Your task to perform on an android device: delete location history Image 0: 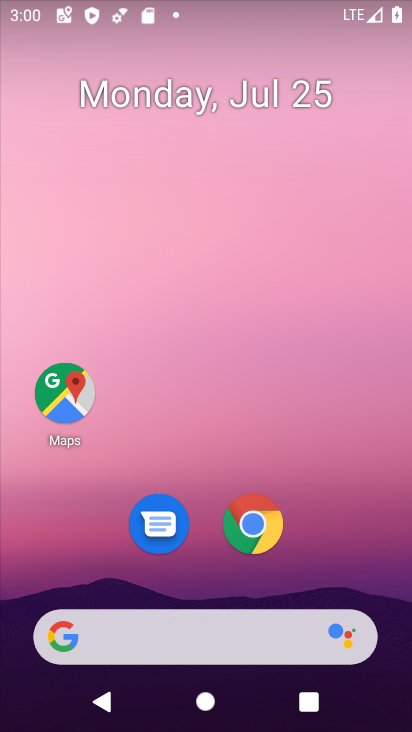
Step 0: drag from (333, 538) to (289, 52)
Your task to perform on an android device: delete location history Image 1: 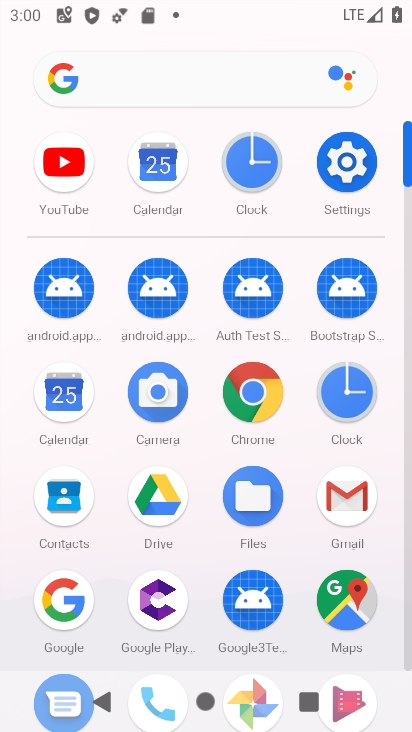
Step 1: click (345, 606)
Your task to perform on an android device: delete location history Image 2: 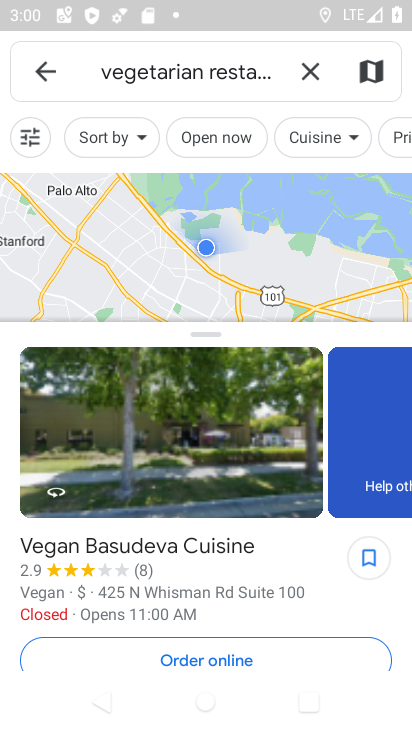
Step 2: click (45, 61)
Your task to perform on an android device: delete location history Image 3: 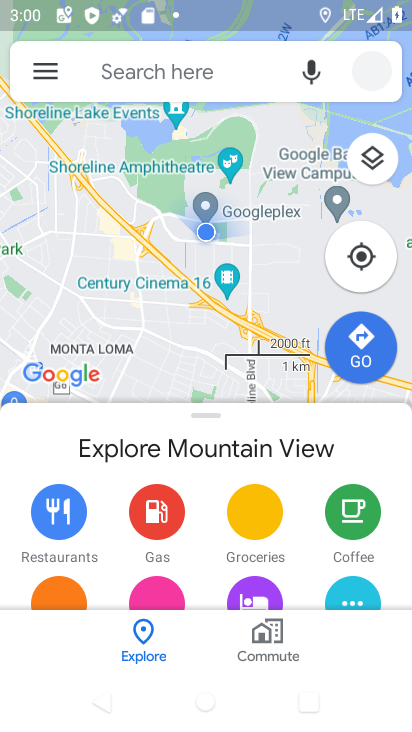
Step 3: click (45, 62)
Your task to perform on an android device: delete location history Image 4: 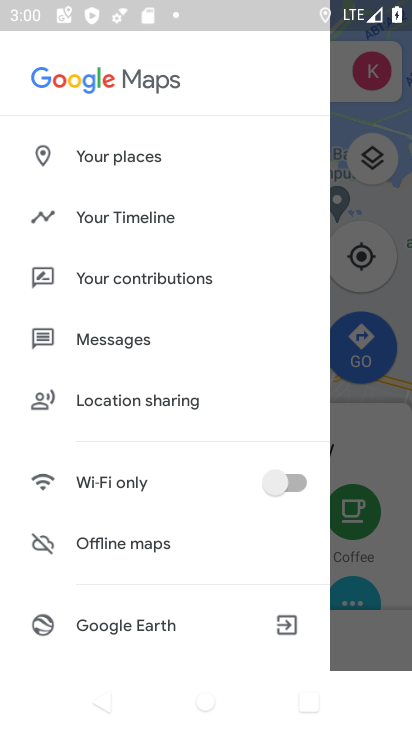
Step 4: click (132, 214)
Your task to perform on an android device: delete location history Image 5: 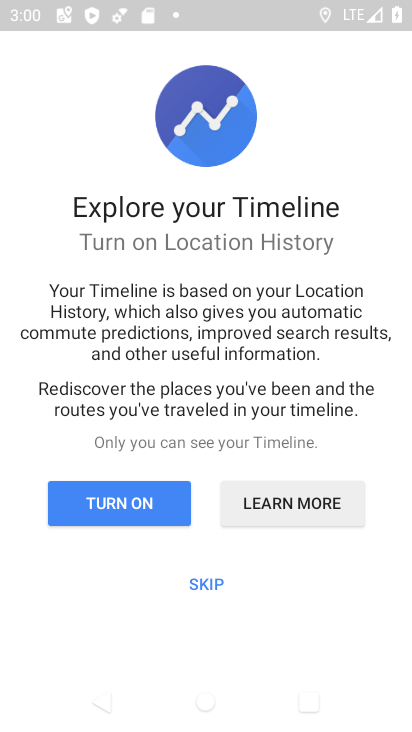
Step 5: click (208, 580)
Your task to perform on an android device: delete location history Image 6: 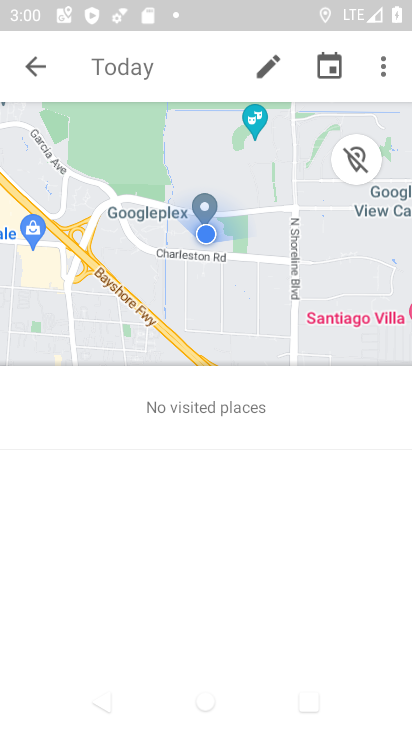
Step 6: click (380, 67)
Your task to perform on an android device: delete location history Image 7: 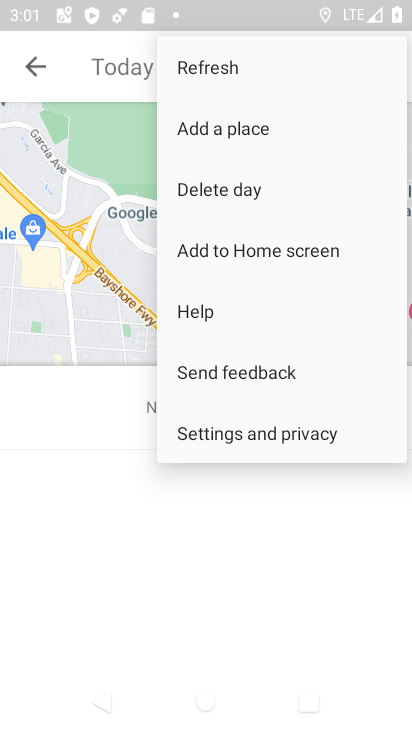
Step 7: click (309, 431)
Your task to perform on an android device: delete location history Image 8: 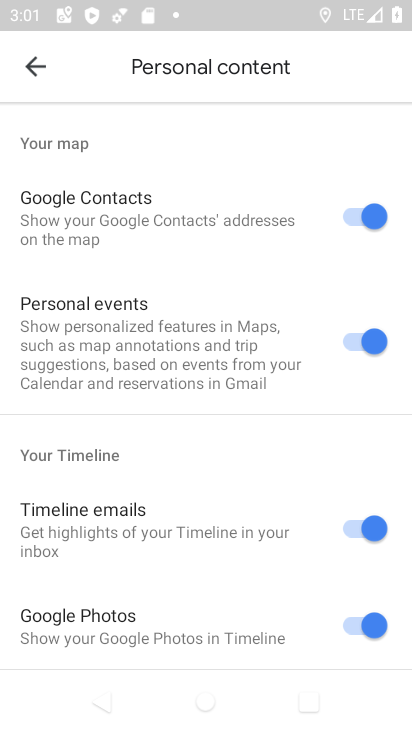
Step 8: drag from (238, 590) to (256, 150)
Your task to perform on an android device: delete location history Image 9: 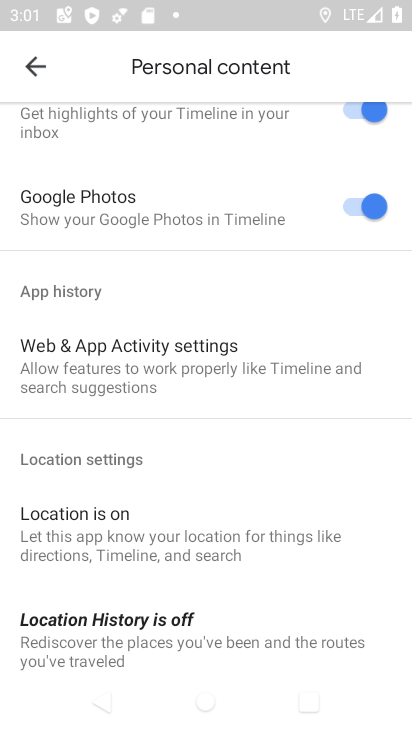
Step 9: drag from (193, 569) to (201, 196)
Your task to perform on an android device: delete location history Image 10: 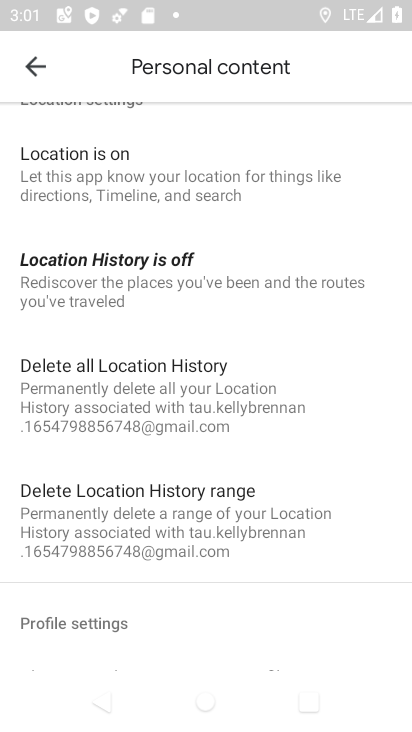
Step 10: click (185, 394)
Your task to perform on an android device: delete location history Image 11: 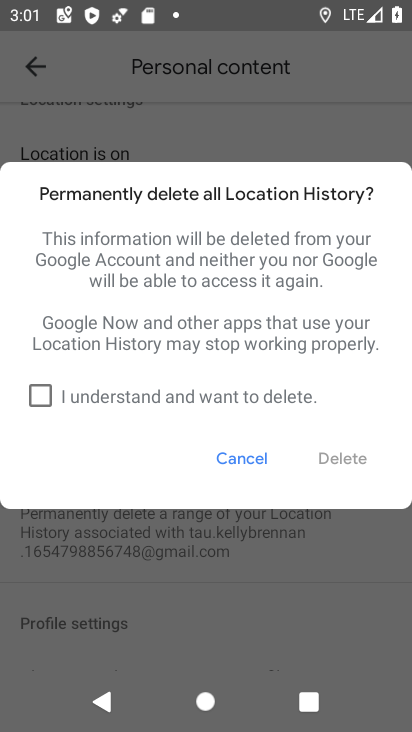
Step 11: click (44, 397)
Your task to perform on an android device: delete location history Image 12: 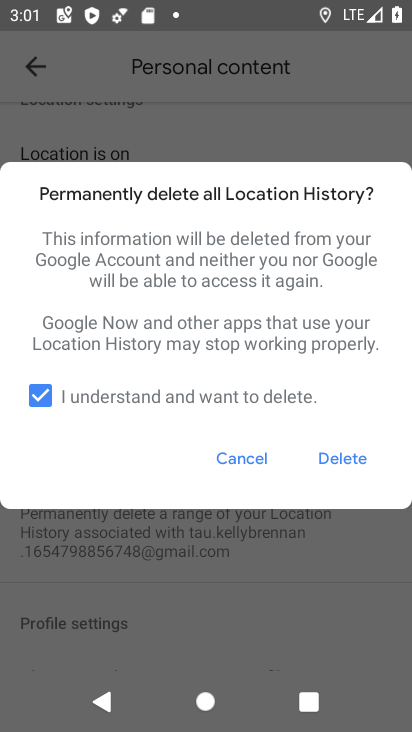
Step 12: click (343, 458)
Your task to perform on an android device: delete location history Image 13: 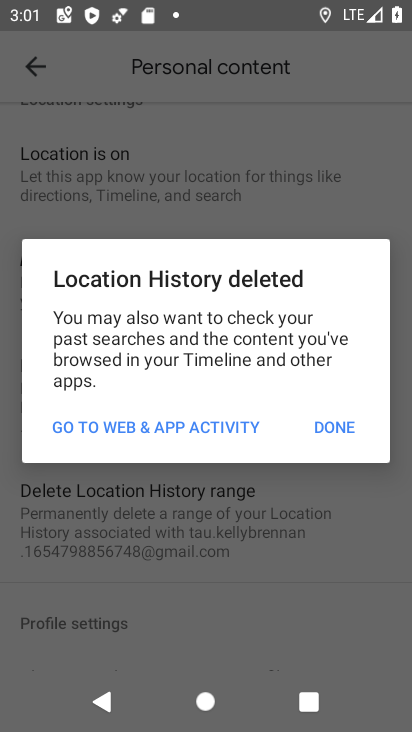
Step 13: click (347, 427)
Your task to perform on an android device: delete location history Image 14: 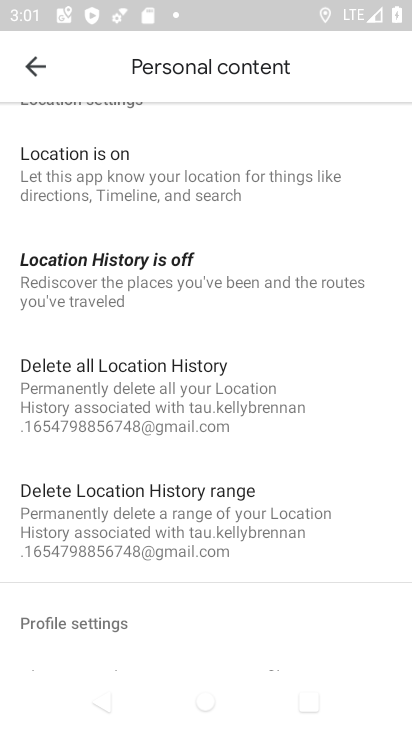
Step 14: task complete